Your task to perform on an android device: What's the weather? Image 0: 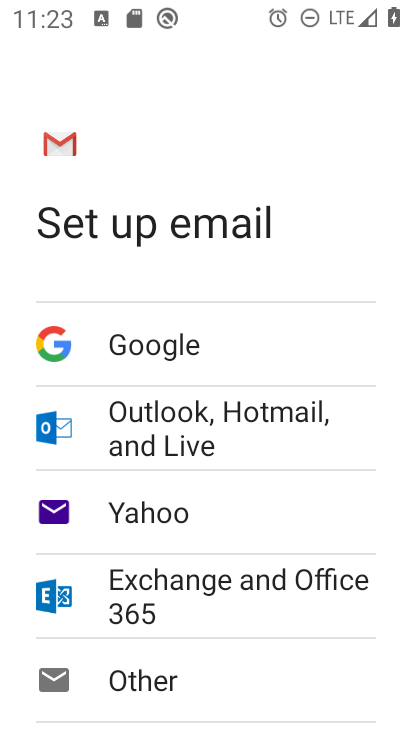
Step 0: press home button
Your task to perform on an android device: What's the weather? Image 1: 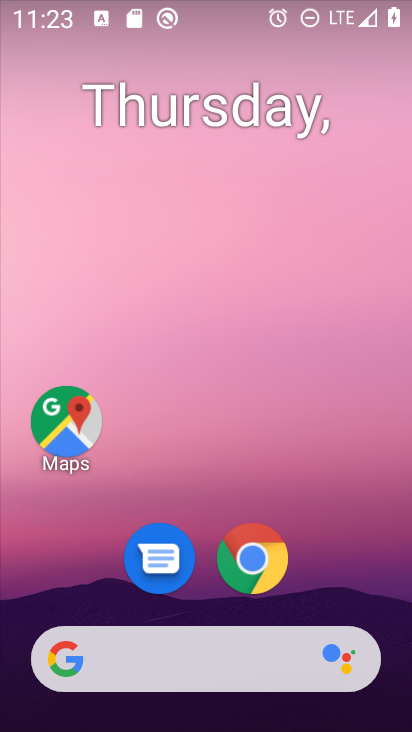
Step 1: drag from (12, 180) to (358, 226)
Your task to perform on an android device: What's the weather? Image 2: 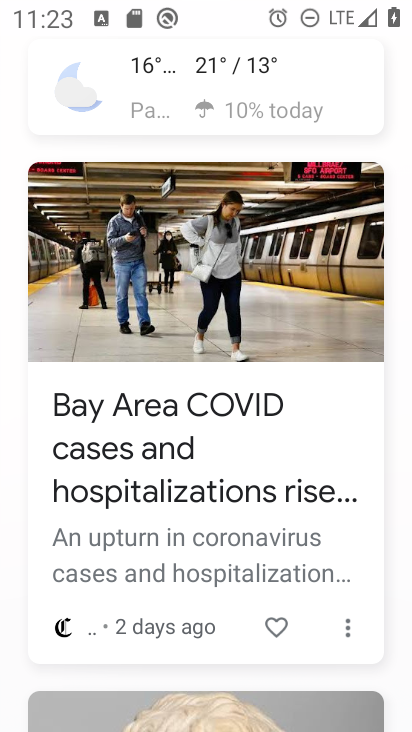
Step 2: click (196, 88)
Your task to perform on an android device: What's the weather? Image 3: 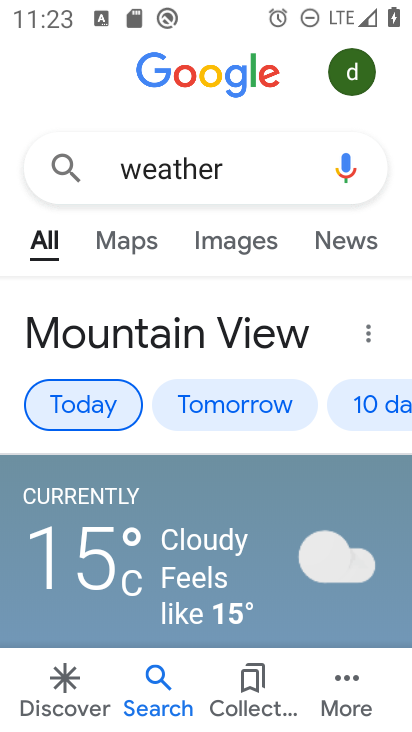
Step 3: task complete